Your task to perform on an android device: Show me productivity apps on the Play Store Image 0: 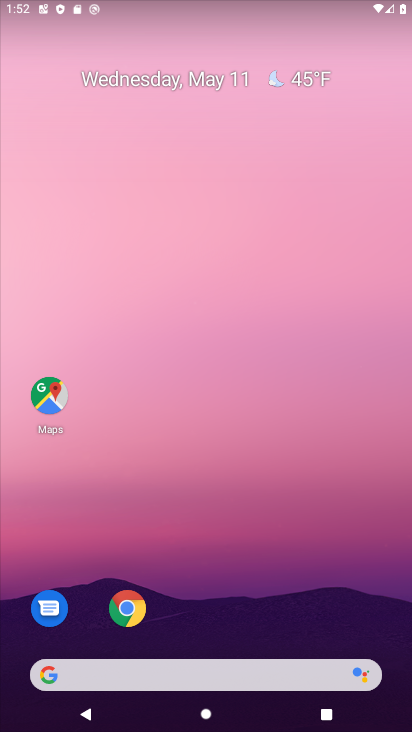
Step 0: press home button
Your task to perform on an android device: Show me productivity apps on the Play Store Image 1: 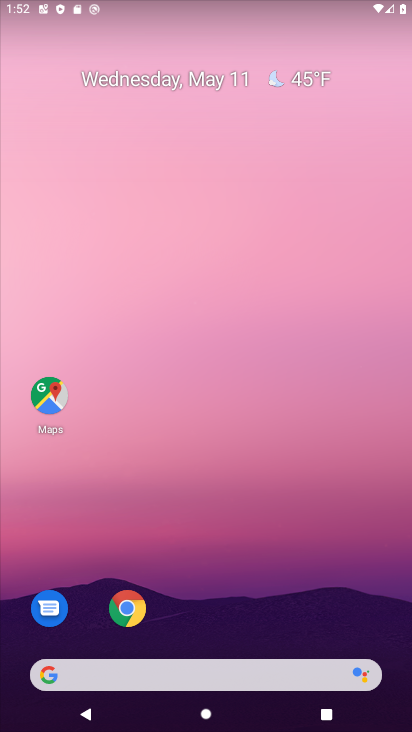
Step 1: drag from (221, 616) to (306, 12)
Your task to perform on an android device: Show me productivity apps on the Play Store Image 2: 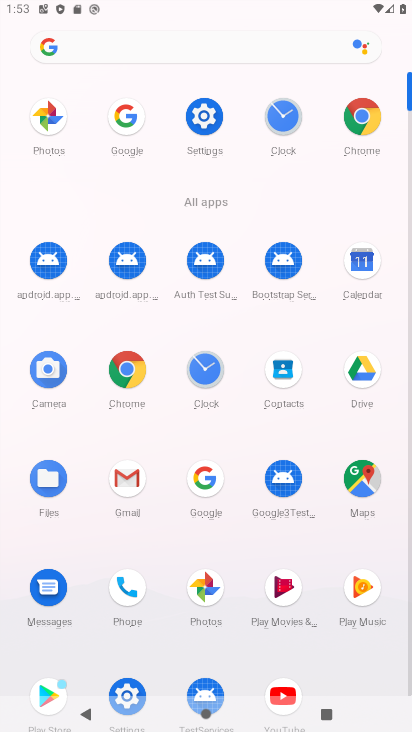
Step 2: click (54, 679)
Your task to perform on an android device: Show me productivity apps on the Play Store Image 3: 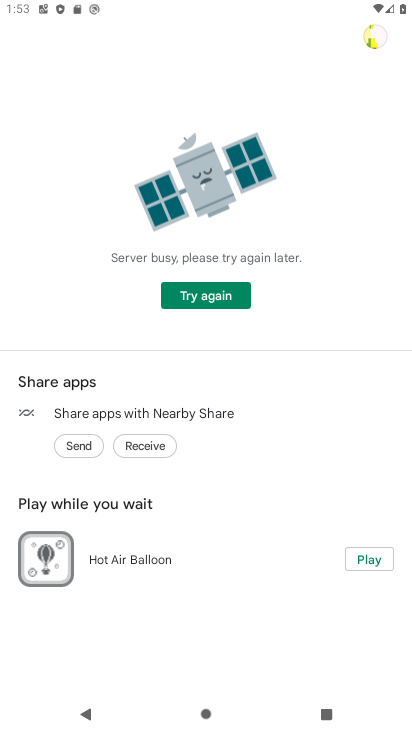
Step 3: task complete